Your task to perform on an android device: turn on airplane mode Image 0: 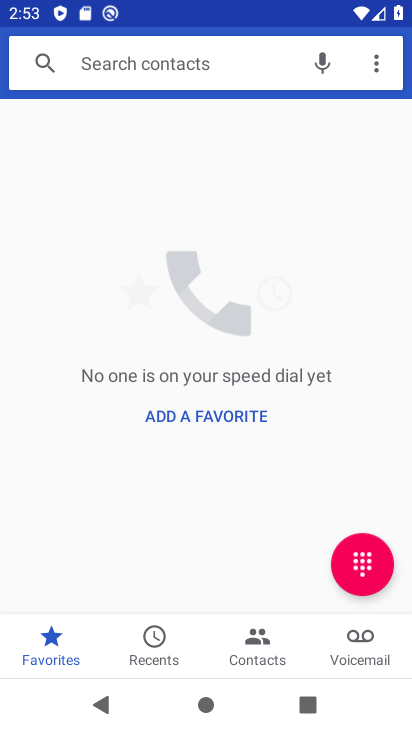
Step 0: press home button
Your task to perform on an android device: turn on airplane mode Image 1: 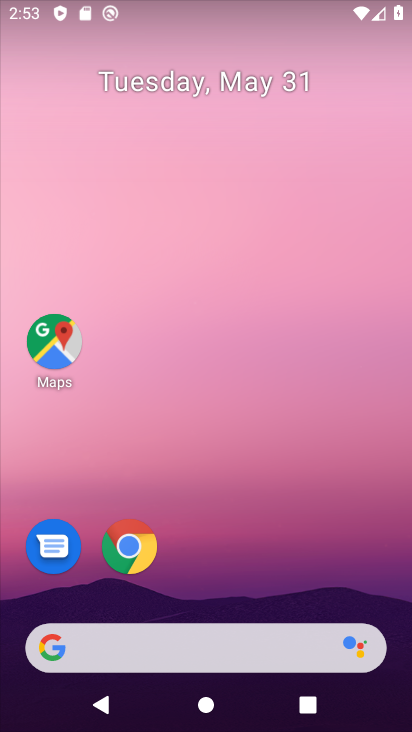
Step 1: drag from (256, 578) to (197, 239)
Your task to perform on an android device: turn on airplane mode Image 2: 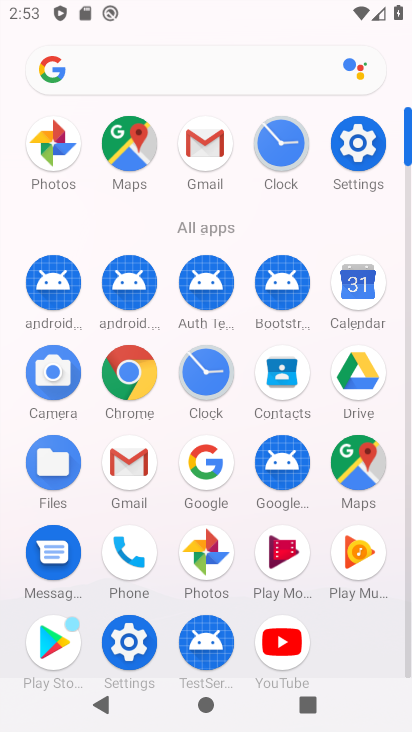
Step 2: click (353, 155)
Your task to perform on an android device: turn on airplane mode Image 3: 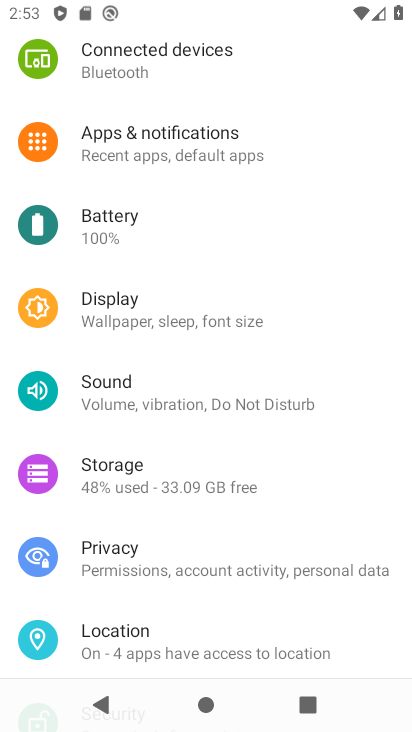
Step 3: drag from (276, 164) to (238, 561)
Your task to perform on an android device: turn on airplane mode Image 4: 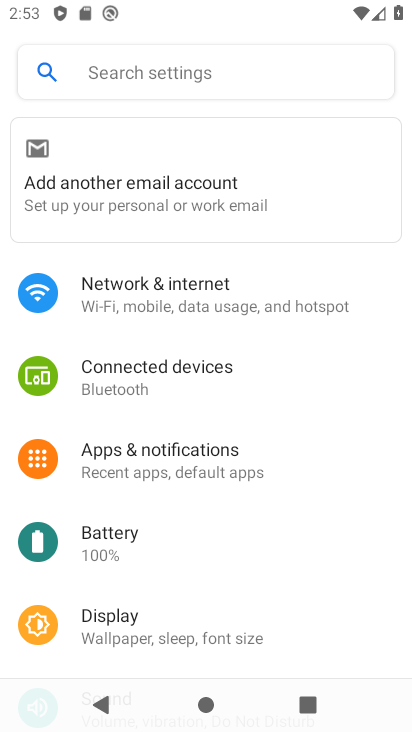
Step 4: click (140, 306)
Your task to perform on an android device: turn on airplane mode Image 5: 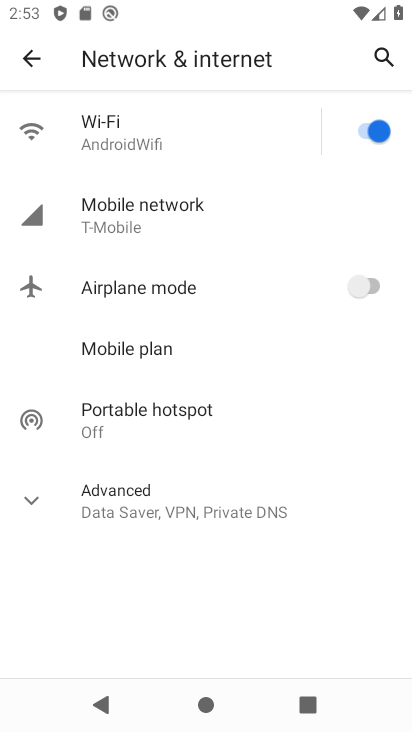
Step 5: click (380, 286)
Your task to perform on an android device: turn on airplane mode Image 6: 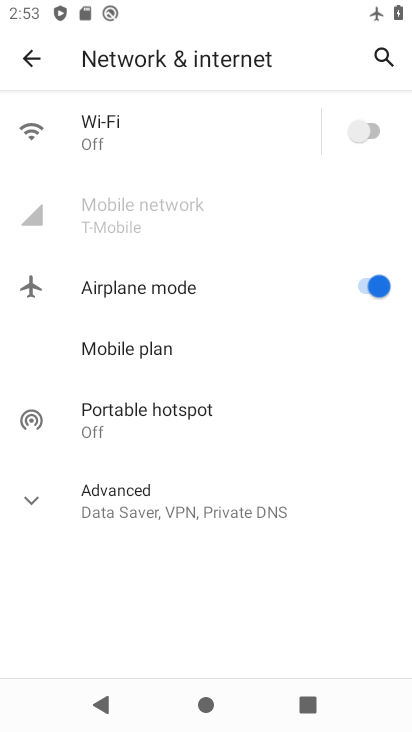
Step 6: task complete